Your task to perform on an android device: empty trash in google photos Image 0: 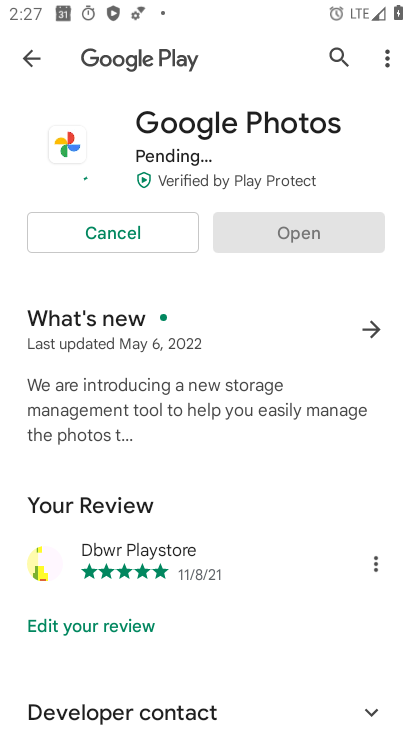
Step 0: drag from (219, 578) to (258, 120)
Your task to perform on an android device: empty trash in google photos Image 1: 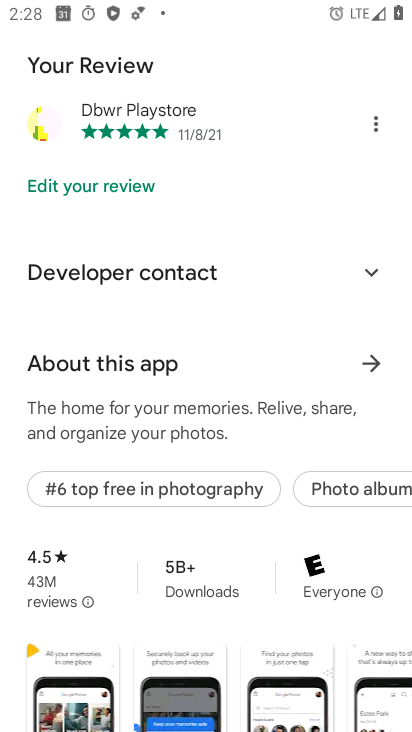
Step 1: press home button
Your task to perform on an android device: empty trash in google photos Image 2: 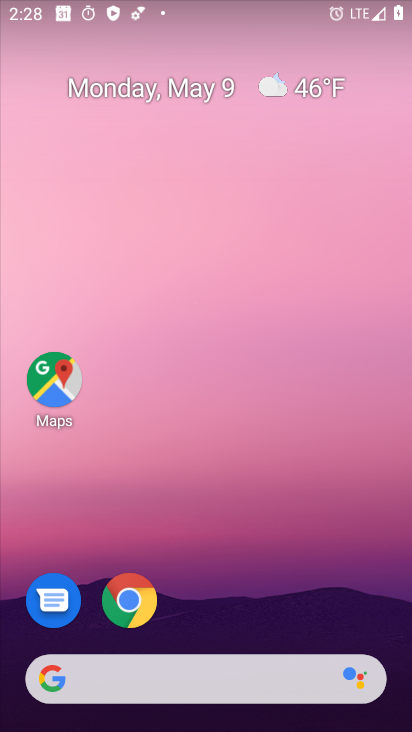
Step 2: drag from (198, 664) to (191, 149)
Your task to perform on an android device: empty trash in google photos Image 3: 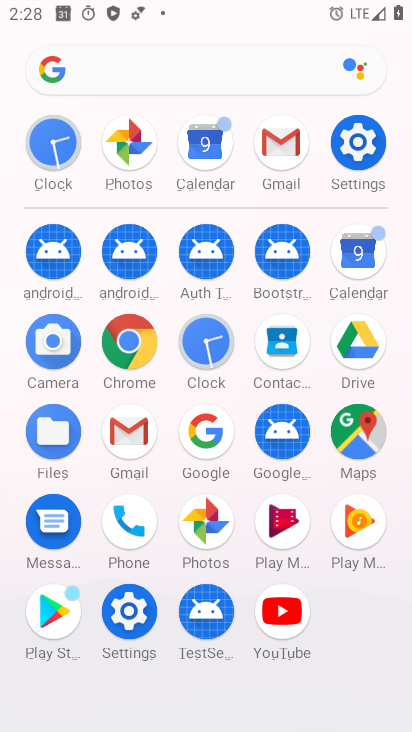
Step 3: click (196, 543)
Your task to perform on an android device: empty trash in google photos Image 4: 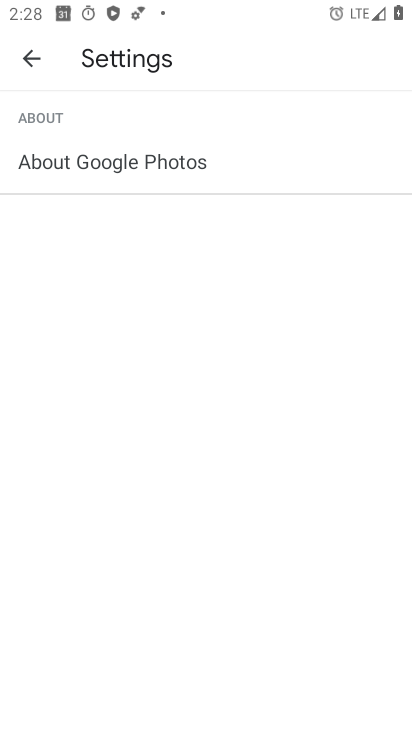
Step 4: click (30, 61)
Your task to perform on an android device: empty trash in google photos Image 5: 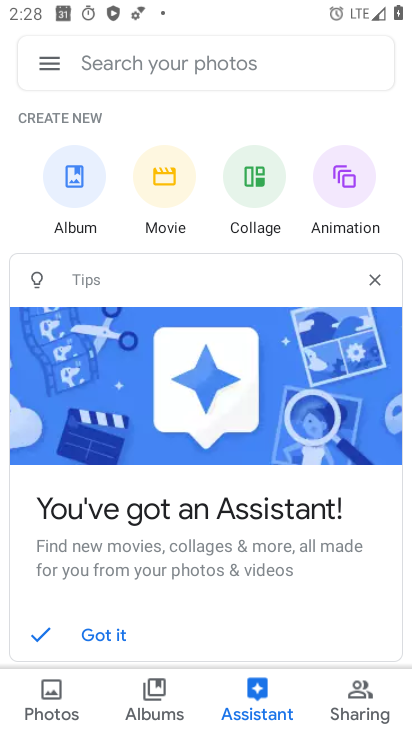
Step 5: click (52, 68)
Your task to perform on an android device: empty trash in google photos Image 6: 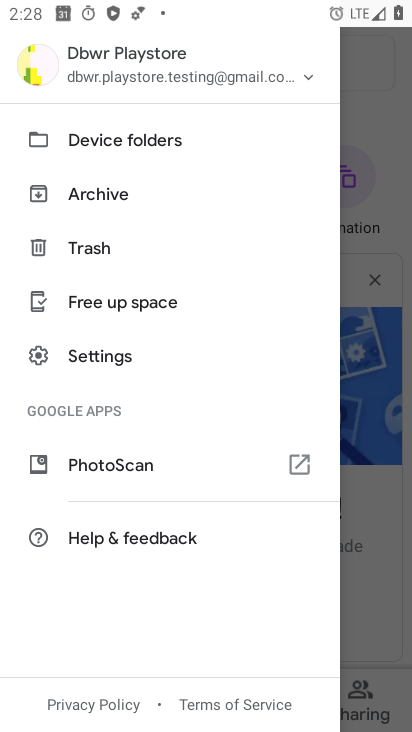
Step 6: click (83, 259)
Your task to perform on an android device: empty trash in google photos Image 7: 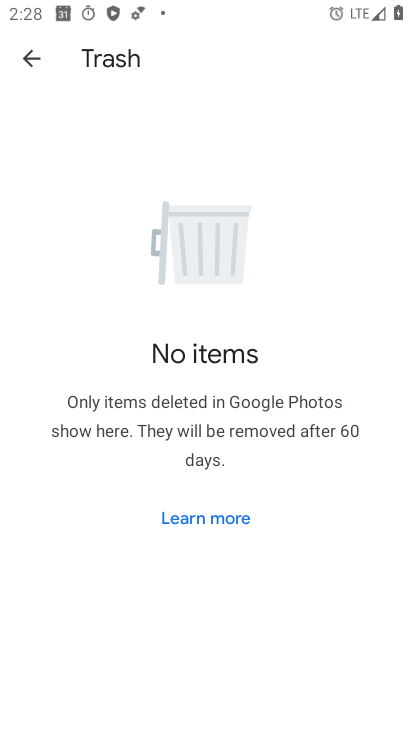
Step 7: task complete